Your task to perform on an android device: uninstall "Google Pay: Save, Pay, Manage" Image 0: 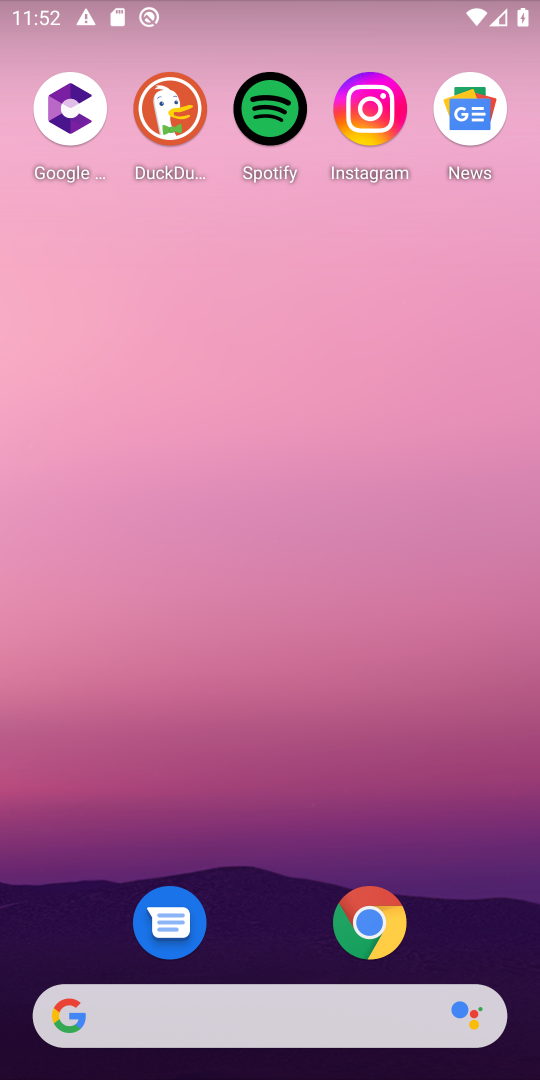
Step 0: drag from (370, 783) to (383, 2)
Your task to perform on an android device: uninstall "Google Pay: Save, Pay, Manage" Image 1: 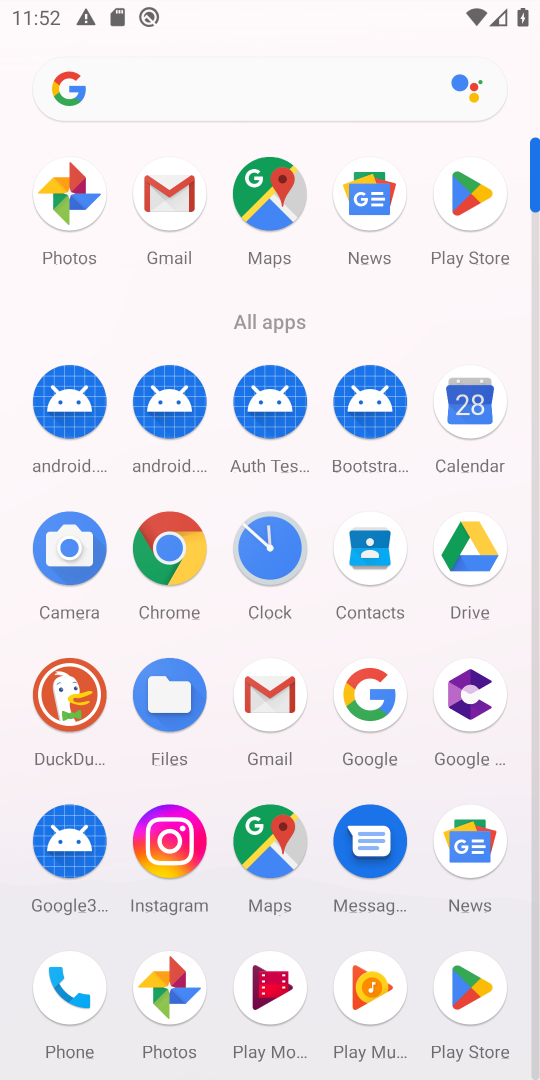
Step 1: click (468, 979)
Your task to perform on an android device: uninstall "Google Pay: Save, Pay, Manage" Image 2: 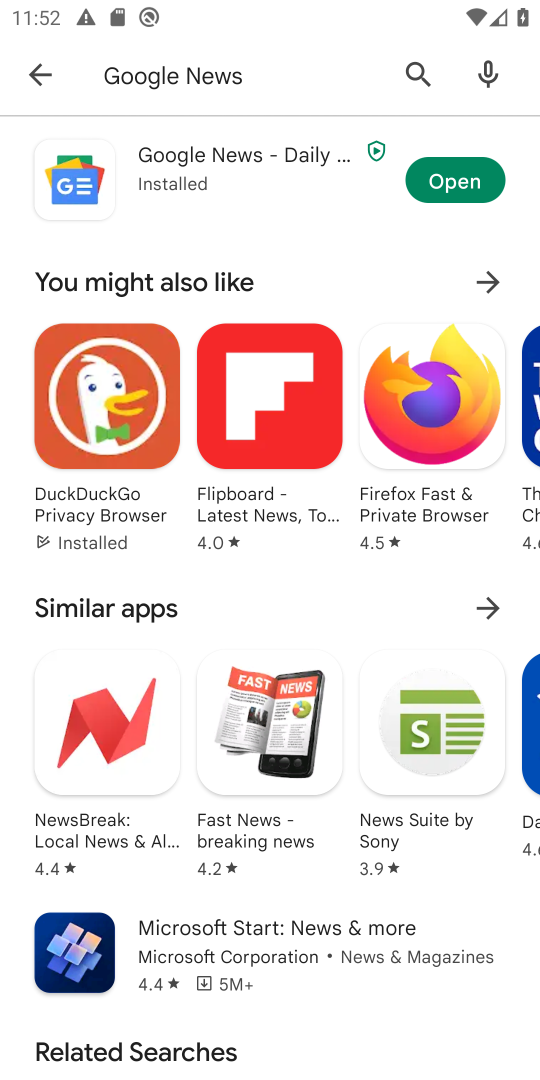
Step 2: click (223, 65)
Your task to perform on an android device: uninstall "Google Pay: Save, Pay, Manage" Image 3: 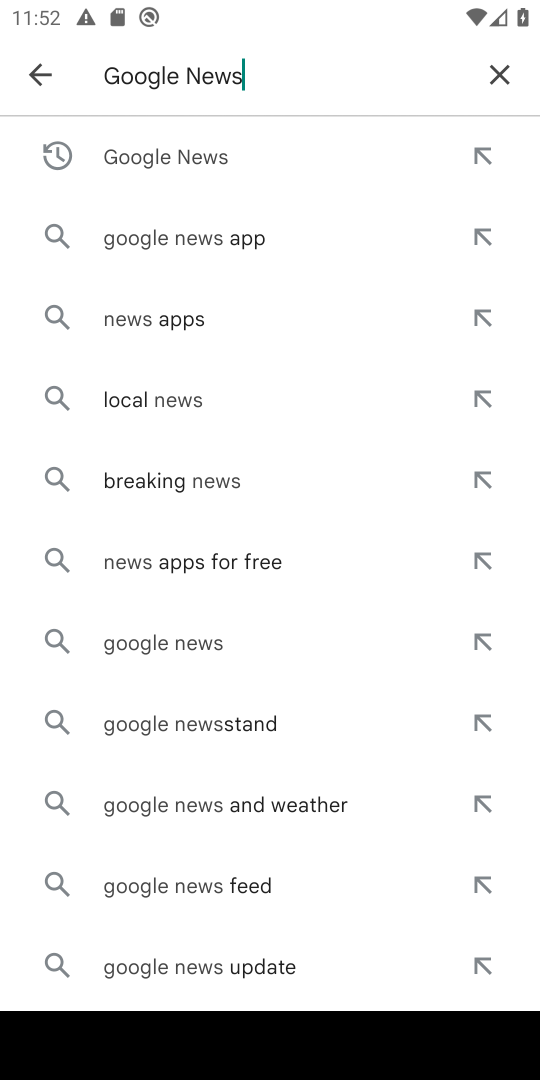
Step 3: click (501, 67)
Your task to perform on an android device: uninstall "Google Pay: Save, Pay, Manage" Image 4: 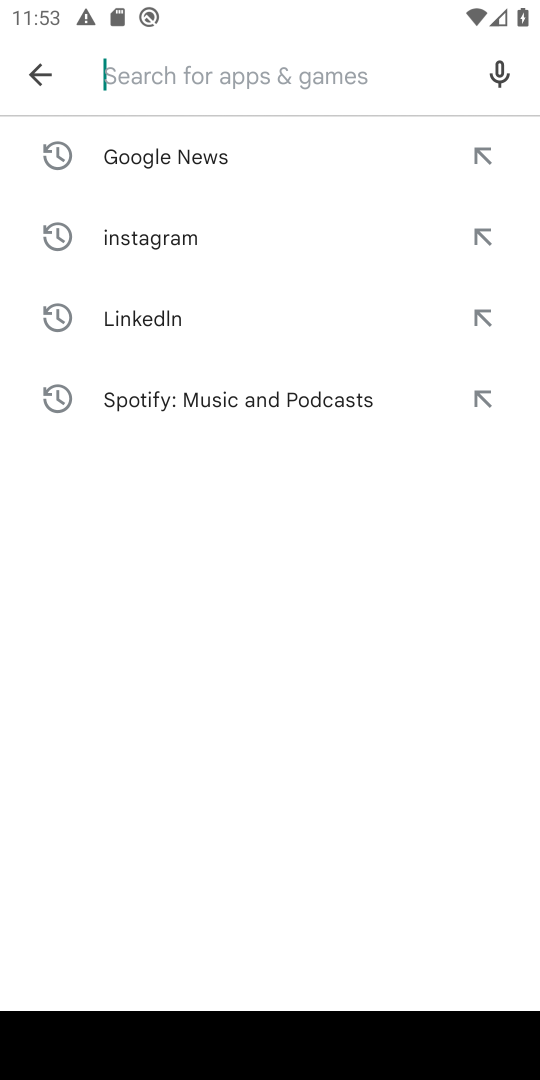
Step 4: type "Google Pay:;Save, Pay, Manage"
Your task to perform on an android device: uninstall "Google Pay: Save, Pay, Manage" Image 5: 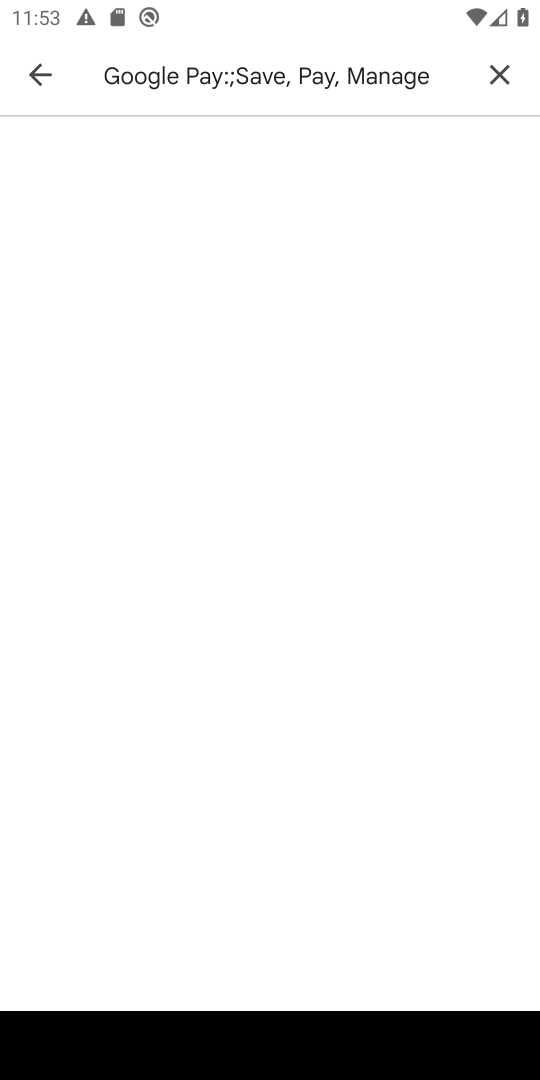
Step 5: press enter
Your task to perform on an android device: uninstall "Google Pay: Save, Pay, Manage" Image 6: 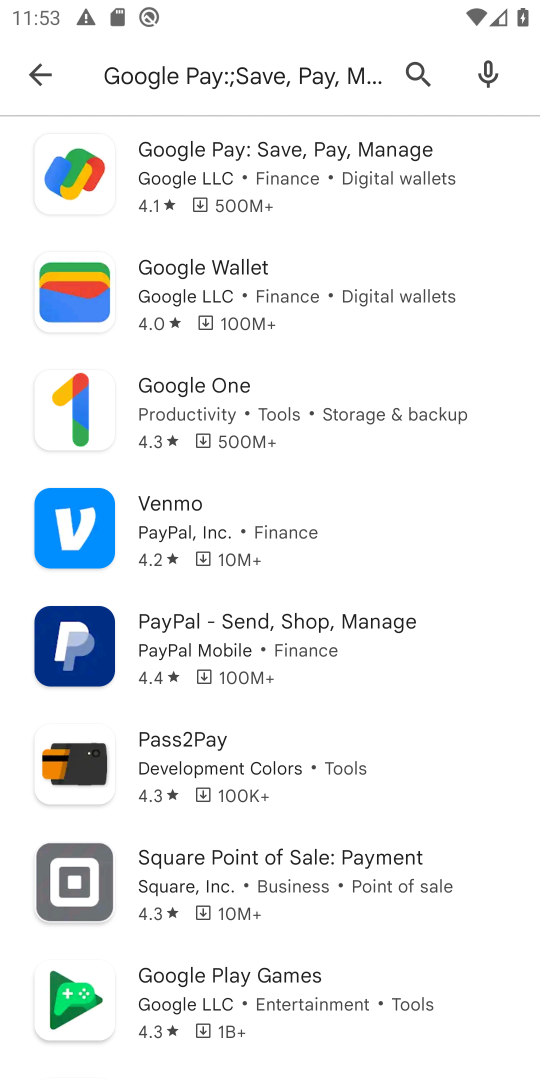
Step 6: click (224, 144)
Your task to perform on an android device: uninstall "Google Pay: Save, Pay, Manage" Image 7: 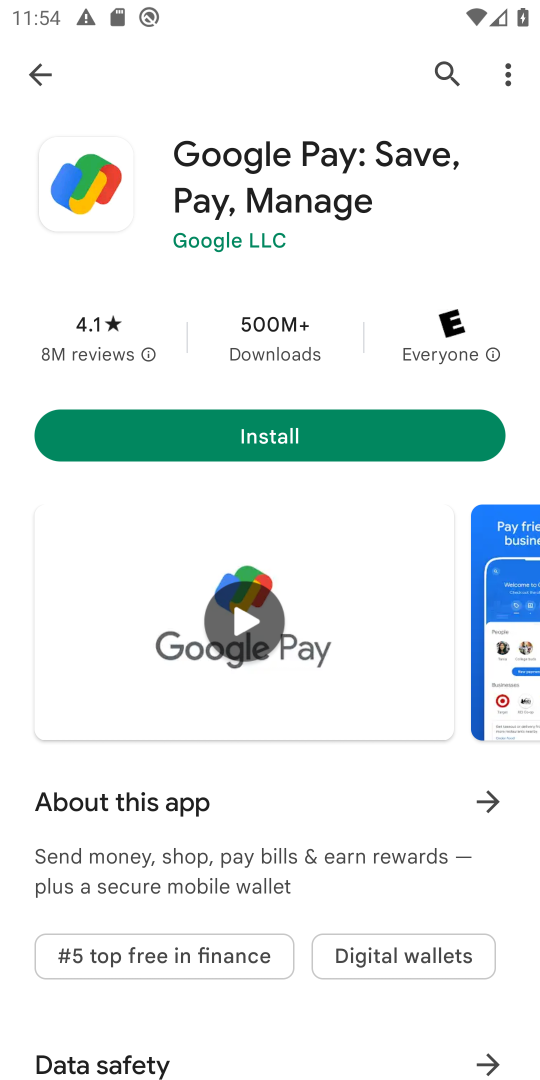
Step 7: task complete